Your task to perform on an android device: turn off javascript in the chrome app Image 0: 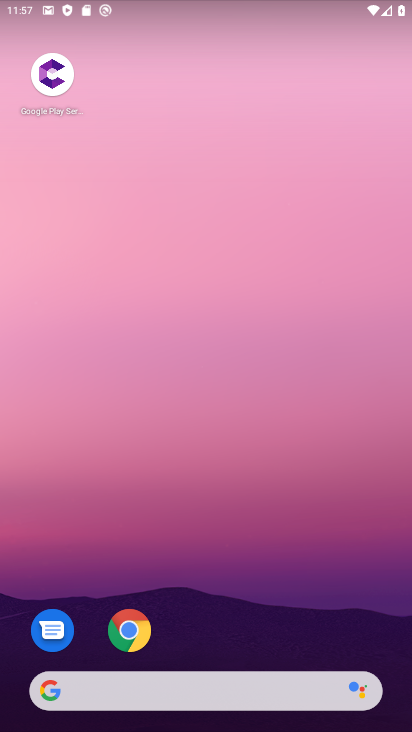
Step 0: click (137, 625)
Your task to perform on an android device: turn off javascript in the chrome app Image 1: 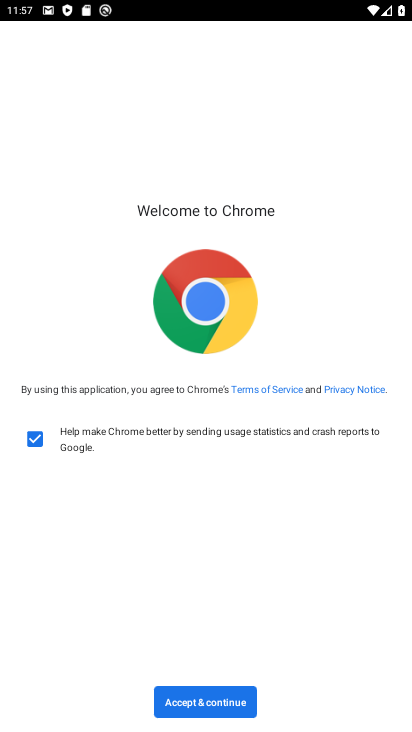
Step 1: click (193, 709)
Your task to perform on an android device: turn off javascript in the chrome app Image 2: 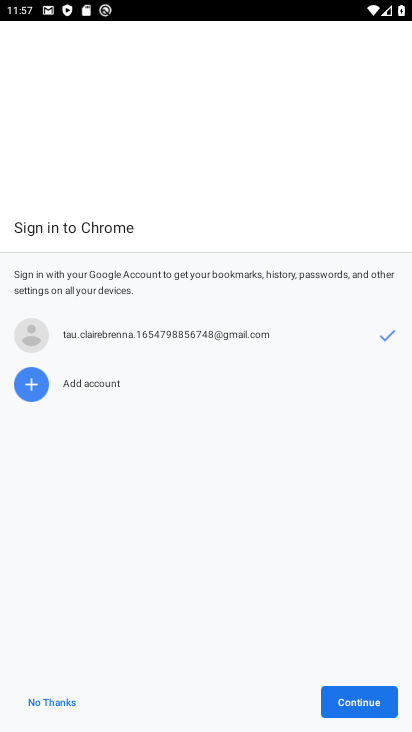
Step 2: click (379, 704)
Your task to perform on an android device: turn off javascript in the chrome app Image 3: 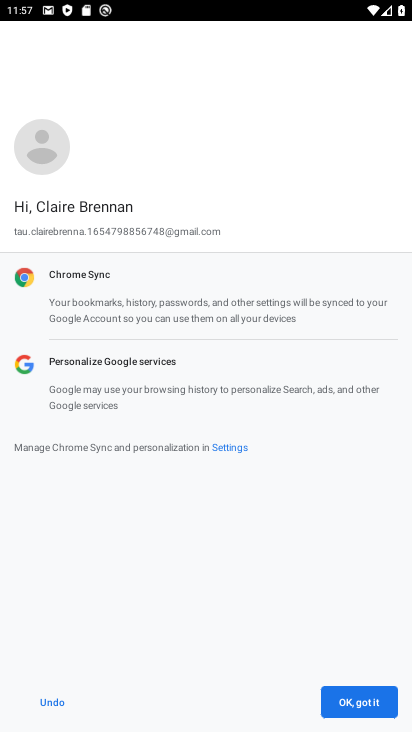
Step 3: click (381, 705)
Your task to perform on an android device: turn off javascript in the chrome app Image 4: 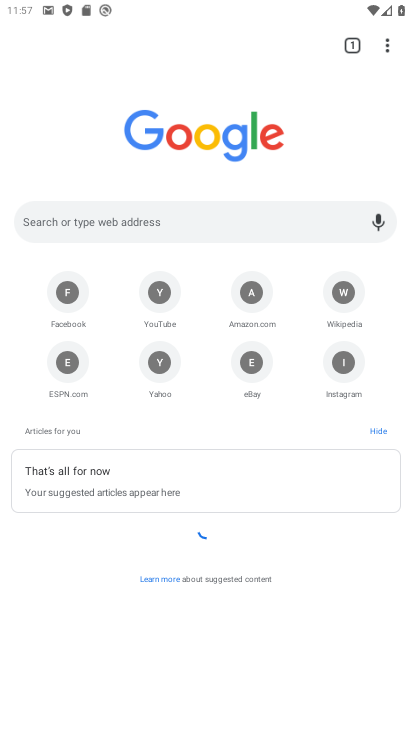
Step 4: click (382, 50)
Your task to perform on an android device: turn off javascript in the chrome app Image 5: 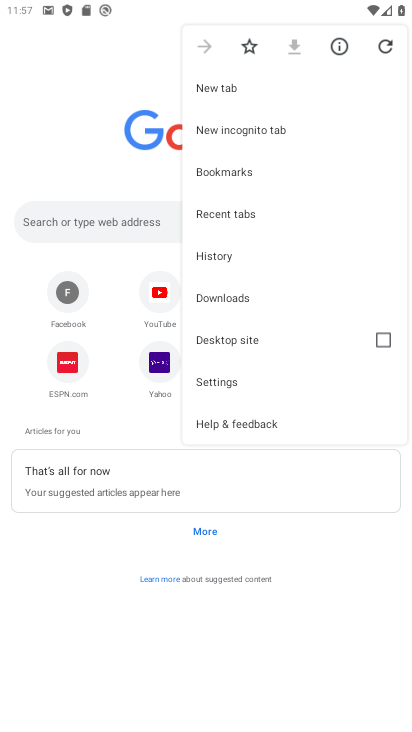
Step 5: click (228, 385)
Your task to perform on an android device: turn off javascript in the chrome app Image 6: 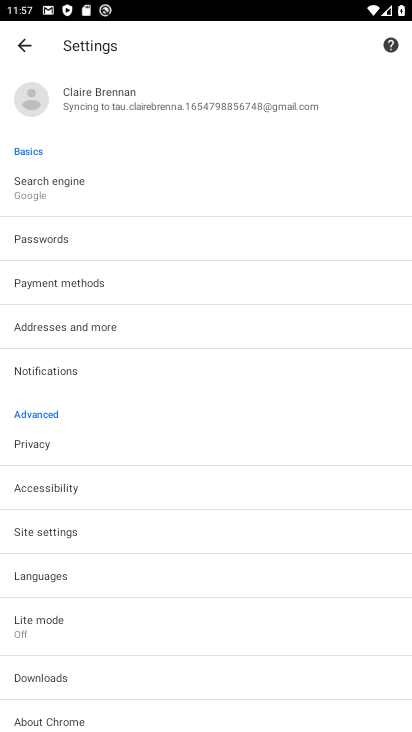
Step 6: click (61, 535)
Your task to perform on an android device: turn off javascript in the chrome app Image 7: 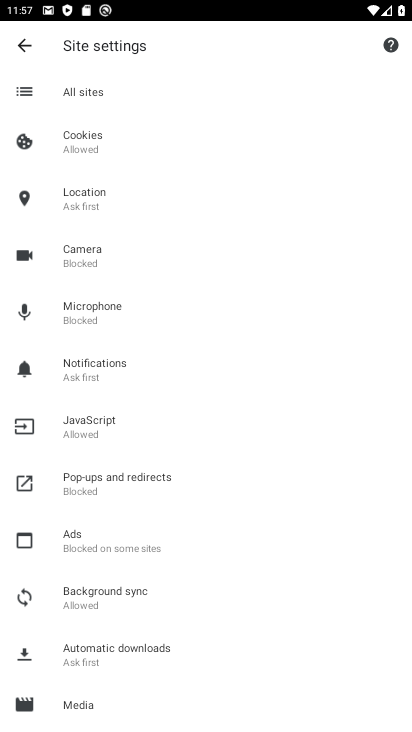
Step 7: click (105, 428)
Your task to perform on an android device: turn off javascript in the chrome app Image 8: 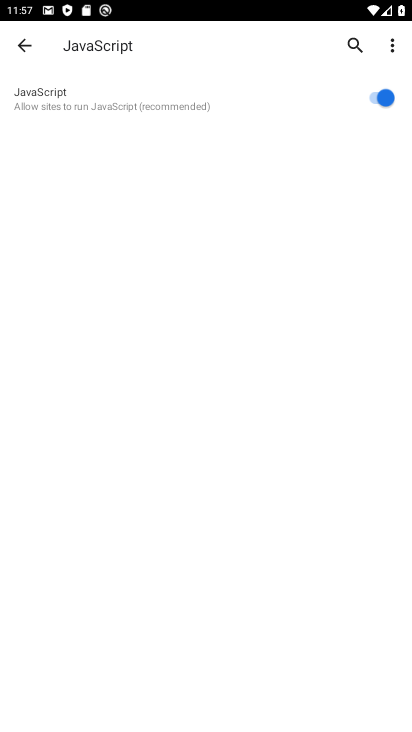
Step 8: click (361, 94)
Your task to perform on an android device: turn off javascript in the chrome app Image 9: 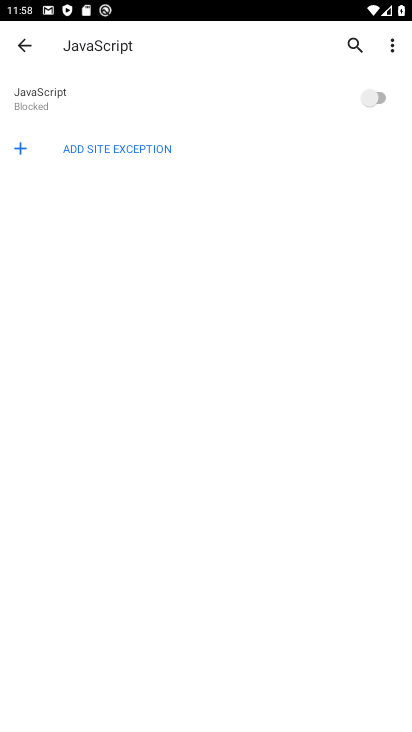
Step 9: task complete